Your task to perform on an android device: Go to internet settings Image 0: 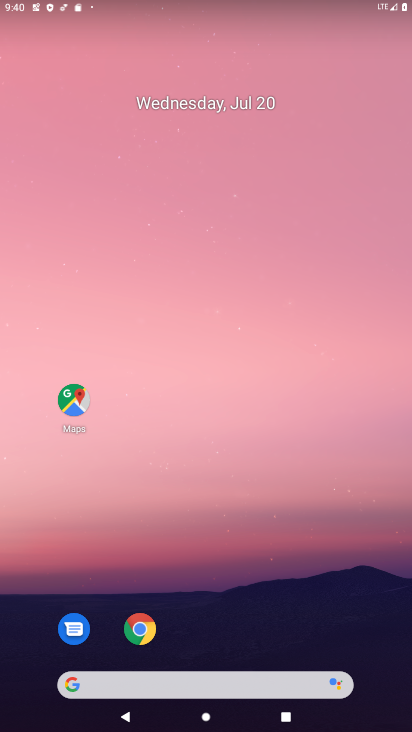
Step 0: press home button
Your task to perform on an android device: Go to internet settings Image 1: 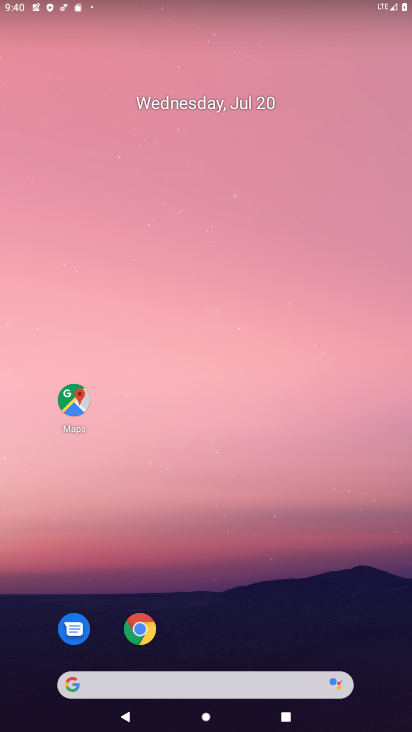
Step 1: drag from (243, 631) to (310, 37)
Your task to perform on an android device: Go to internet settings Image 2: 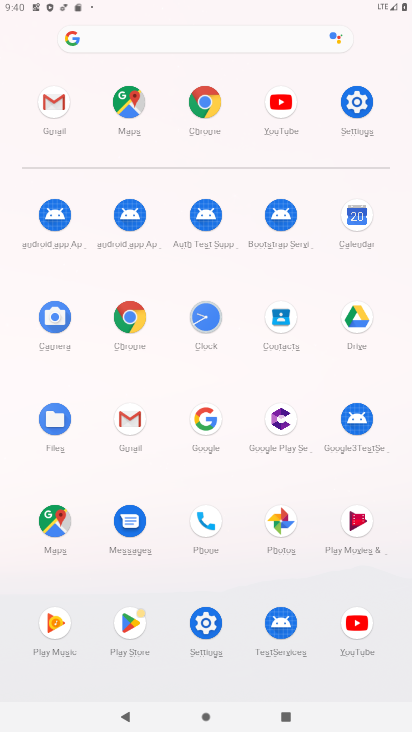
Step 2: click (201, 628)
Your task to perform on an android device: Go to internet settings Image 3: 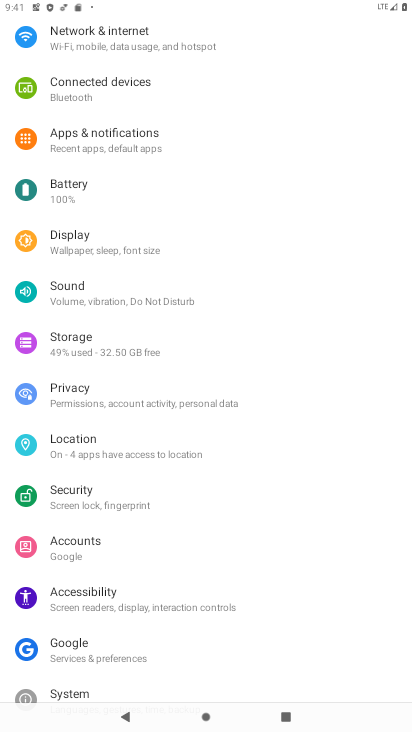
Step 3: click (125, 32)
Your task to perform on an android device: Go to internet settings Image 4: 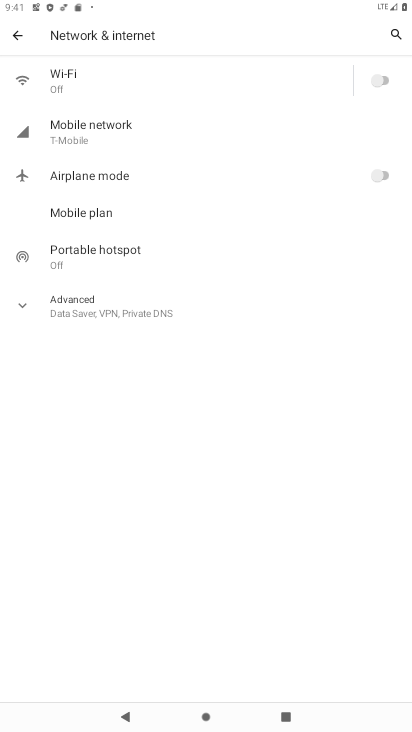
Step 4: task complete